Your task to perform on an android device: Open Wikipedia Image 0: 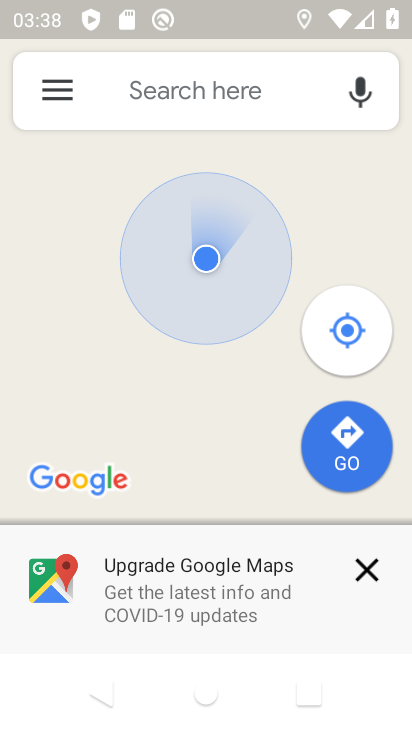
Step 0: press home button
Your task to perform on an android device: Open Wikipedia Image 1: 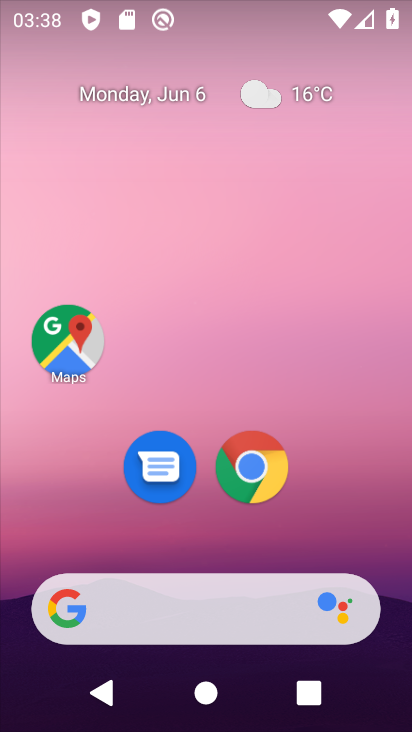
Step 1: click (258, 465)
Your task to perform on an android device: Open Wikipedia Image 2: 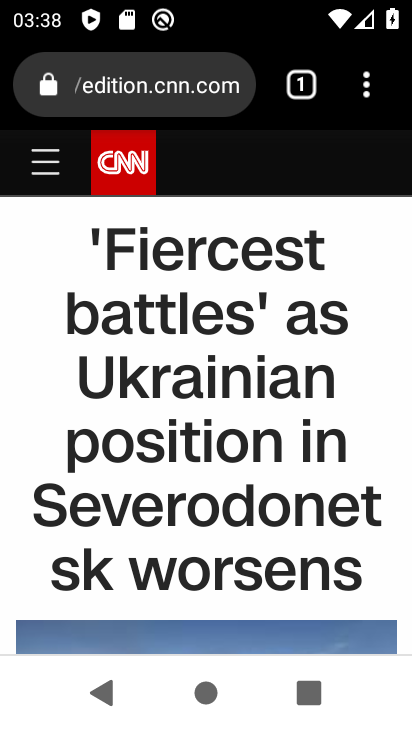
Step 2: click (298, 78)
Your task to perform on an android device: Open Wikipedia Image 3: 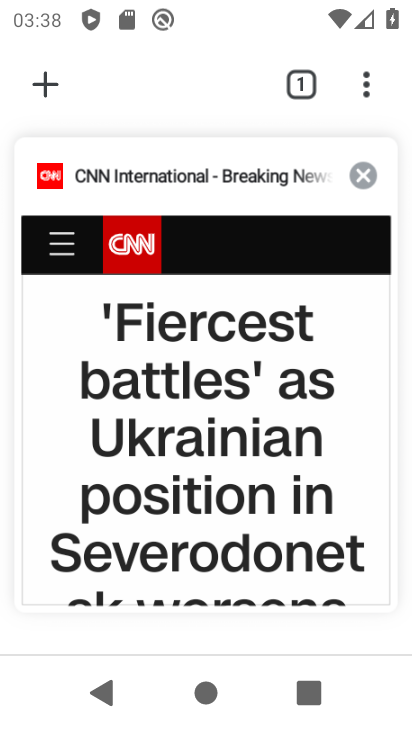
Step 3: click (358, 171)
Your task to perform on an android device: Open Wikipedia Image 4: 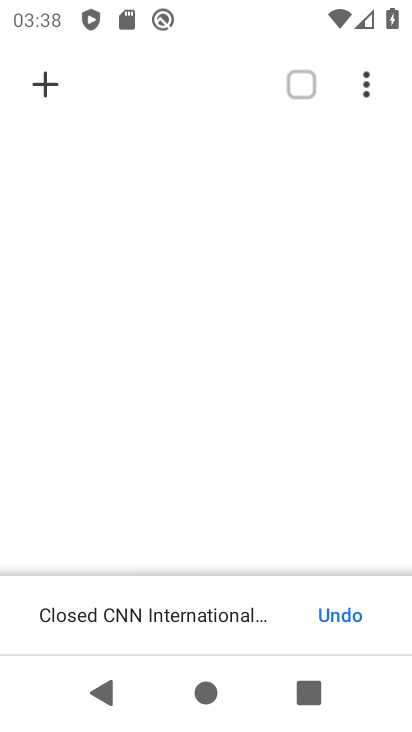
Step 4: click (21, 88)
Your task to perform on an android device: Open Wikipedia Image 5: 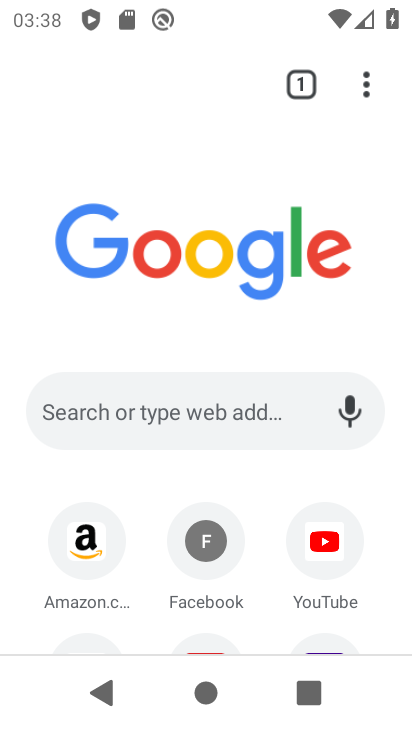
Step 5: drag from (145, 578) to (179, 16)
Your task to perform on an android device: Open Wikipedia Image 6: 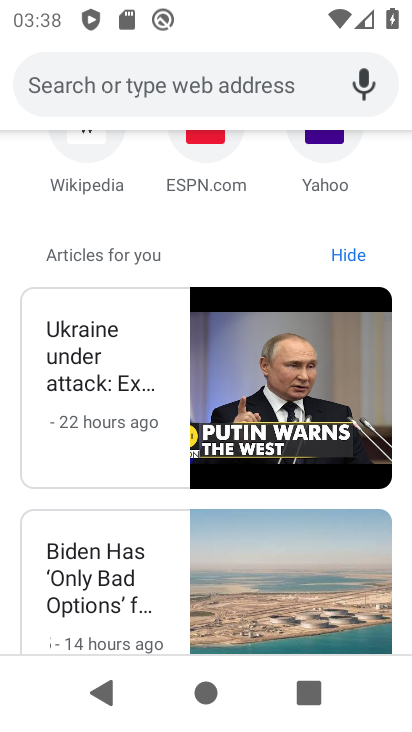
Step 6: click (88, 137)
Your task to perform on an android device: Open Wikipedia Image 7: 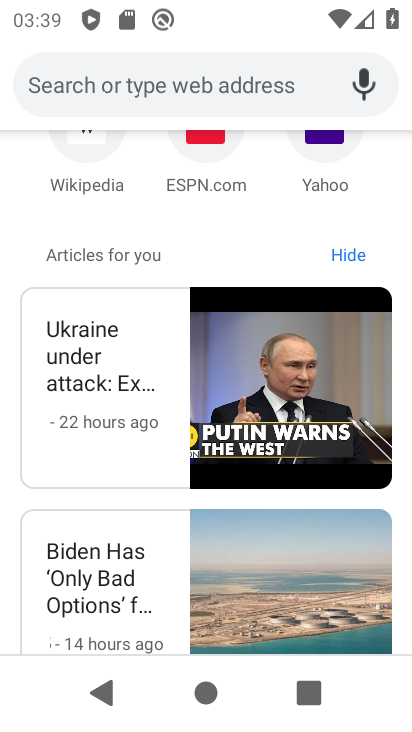
Step 7: click (97, 148)
Your task to perform on an android device: Open Wikipedia Image 8: 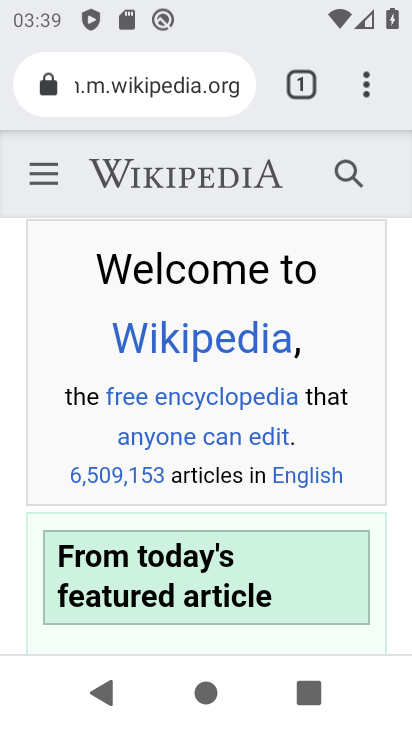
Step 8: task complete